Your task to perform on an android device: see sites visited before in the chrome app Image 0: 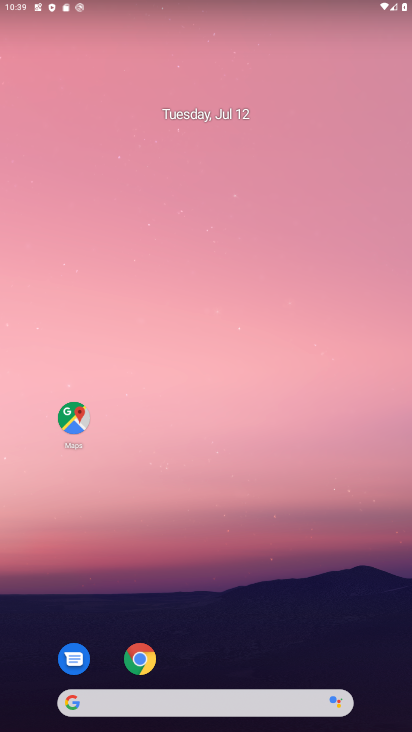
Step 0: click (72, 407)
Your task to perform on an android device: see sites visited before in the chrome app Image 1: 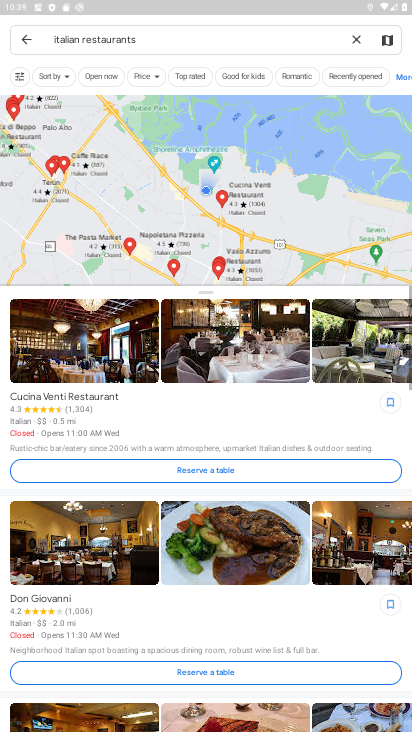
Step 1: press back button
Your task to perform on an android device: see sites visited before in the chrome app Image 2: 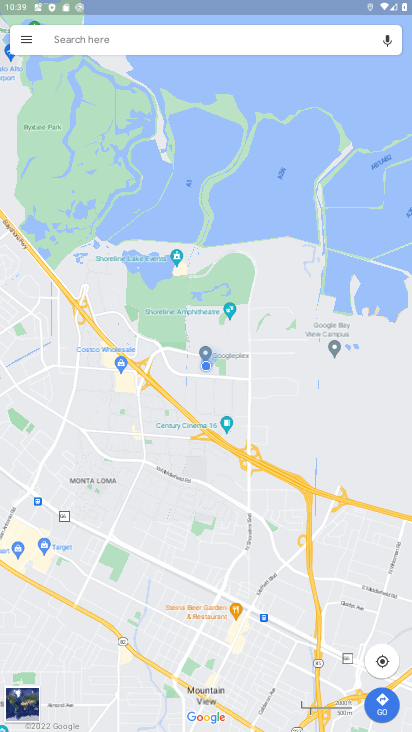
Step 2: press home button
Your task to perform on an android device: see sites visited before in the chrome app Image 3: 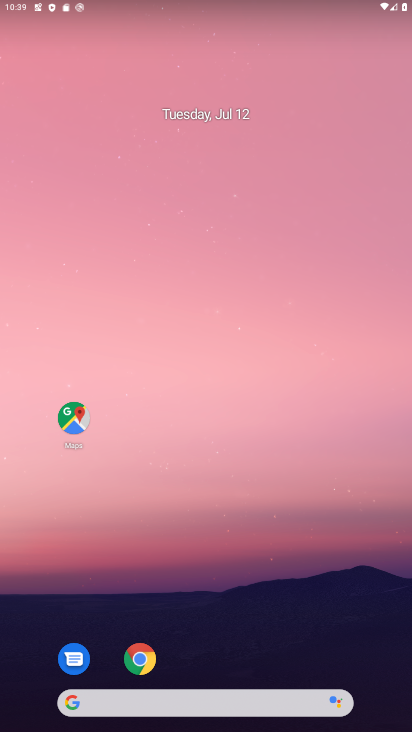
Step 3: click (134, 654)
Your task to perform on an android device: see sites visited before in the chrome app Image 4: 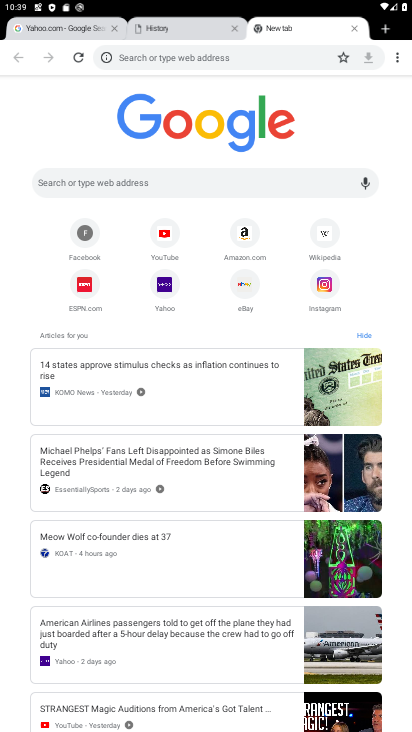
Step 4: click (402, 56)
Your task to perform on an android device: see sites visited before in the chrome app Image 5: 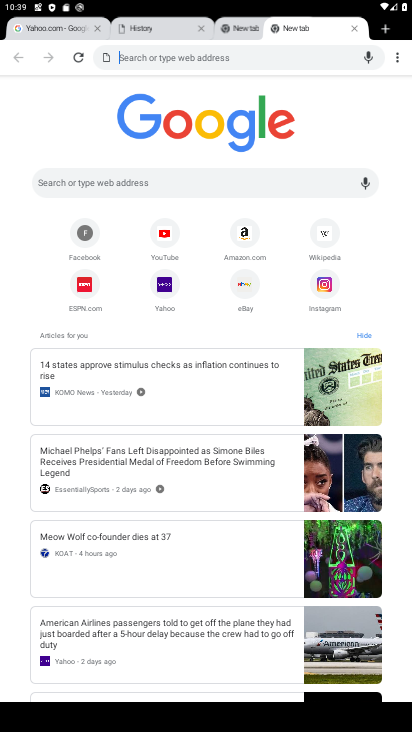
Step 5: click (399, 60)
Your task to perform on an android device: see sites visited before in the chrome app Image 6: 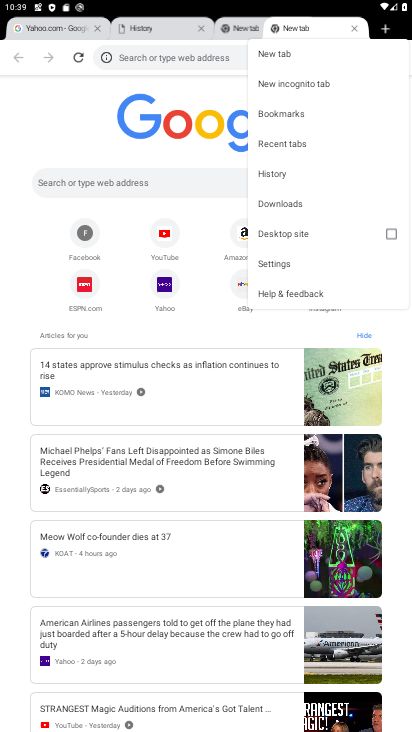
Step 6: click (273, 141)
Your task to perform on an android device: see sites visited before in the chrome app Image 7: 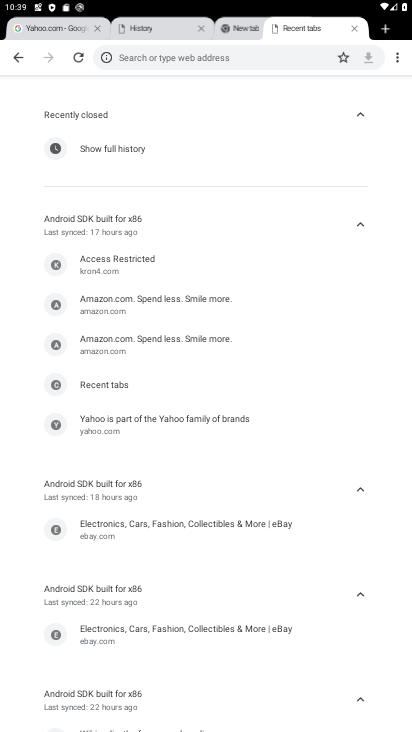
Step 7: task complete